Your task to perform on an android device: Open Yahoo.com Image 0: 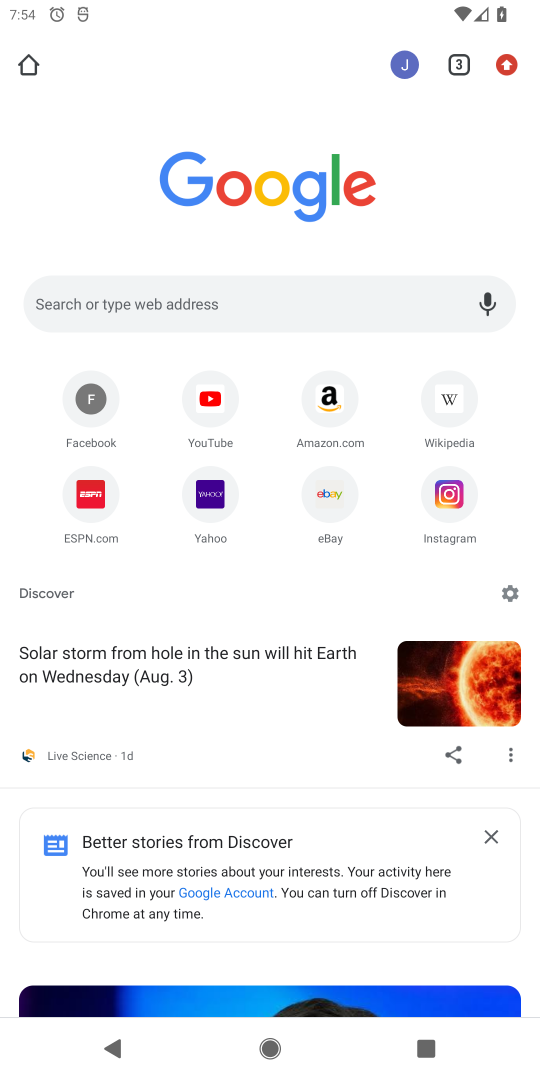
Step 0: press home button
Your task to perform on an android device: Open Yahoo.com Image 1: 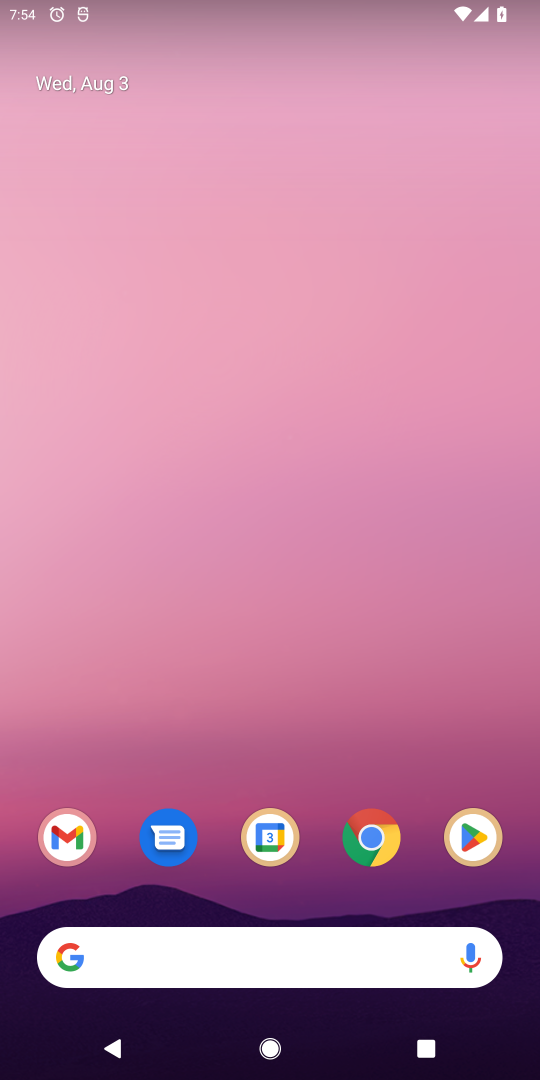
Step 1: click (66, 956)
Your task to perform on an android device: Open Yahoo.com Image 2: 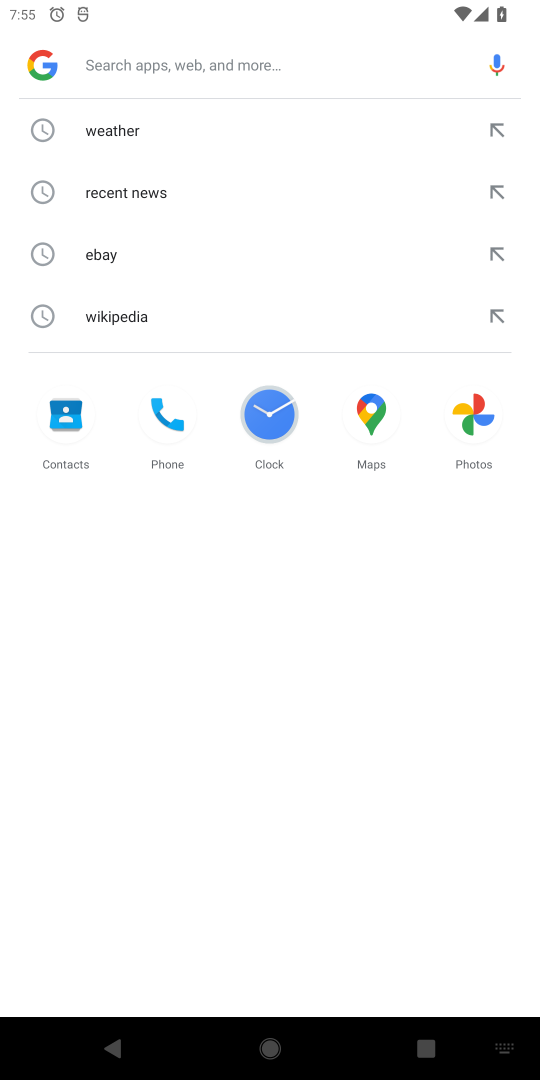
Step 2: type " Yahoo.com"
Your task to perform on an android device: Open Yahoo.com Image 3: 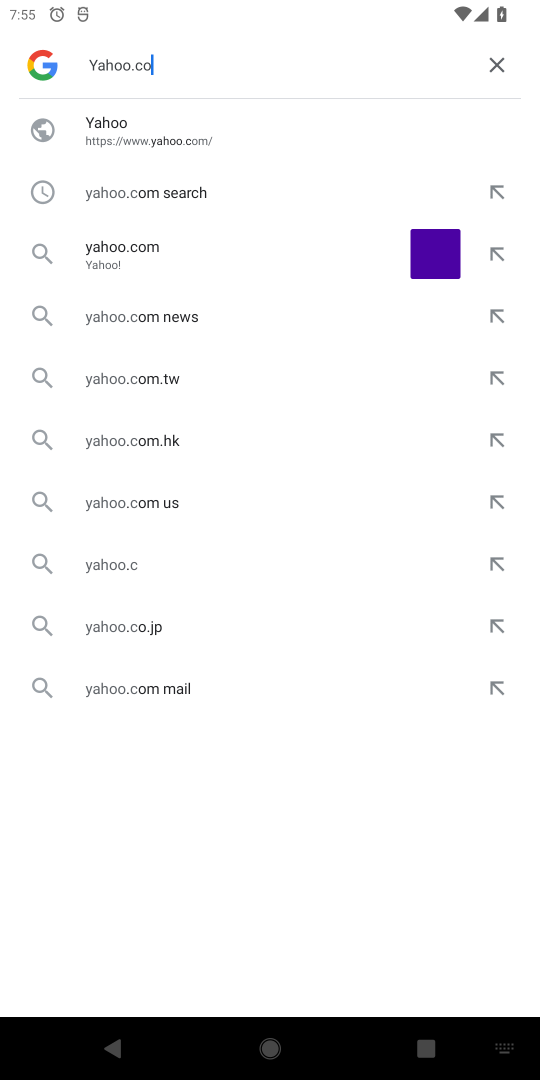
Step 3: press enter
Your task to perform on an android device: Open Yahoo.com Image 4: 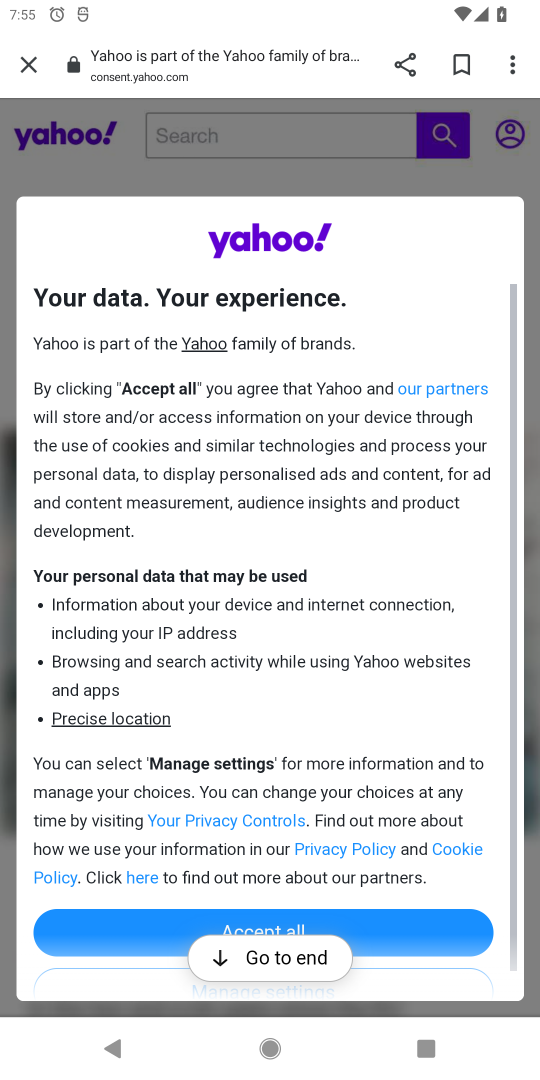
Step 4: click (391, 929)
Your task to perform on an android device: Open Yahoo.com Image 5: 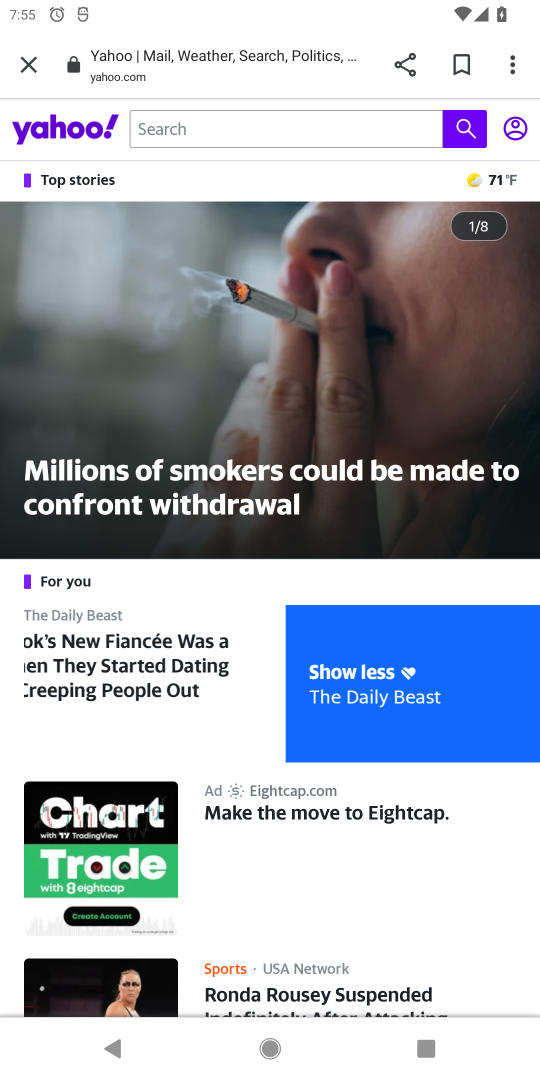
Step 5: task complete